Your task to perform on an android device: turn off javascript in the chrome app Image 0: 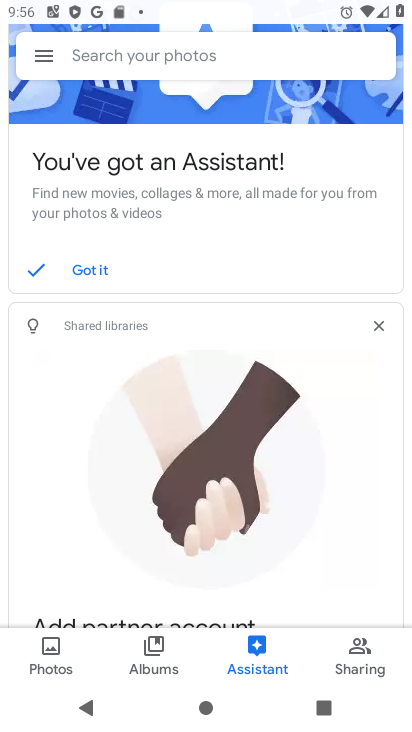
Step 0: press home button
Your task to perform on an android device: turn off javascript in the chrome app Image 1: 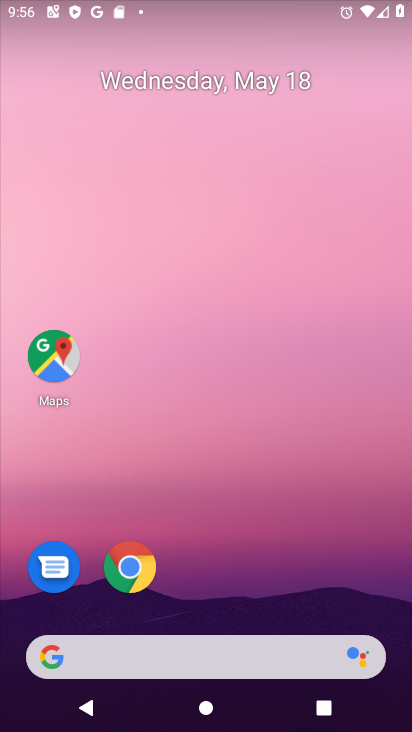
Step 1: click (139, 566)
Your task to perform on an android device: turn off javascript in the chrome app Image 2: 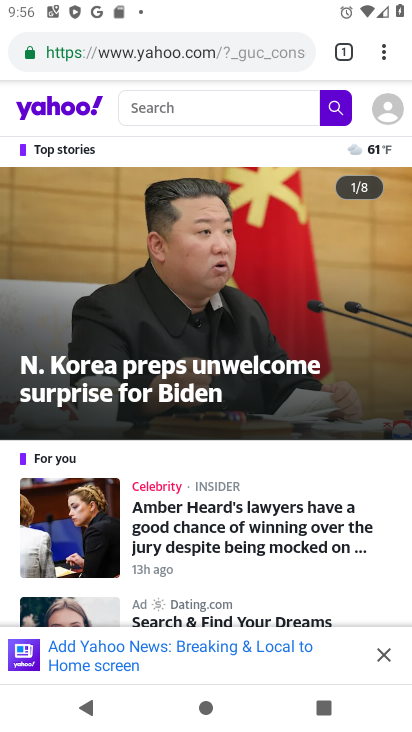
Step 2: drag from (382, 46) to (186, 624)
Your task to perform on an android device: turn off javascript in the chrome app Image 3: 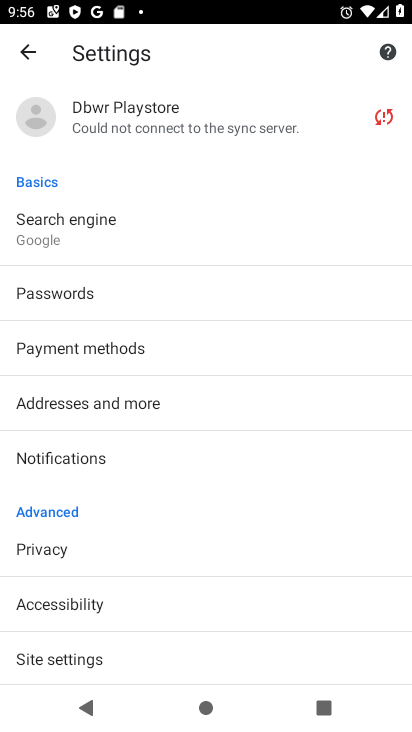
Step 3: click (81, 650)
Your task to perform on an android device: turn off javascript in the chrome app Image 4: 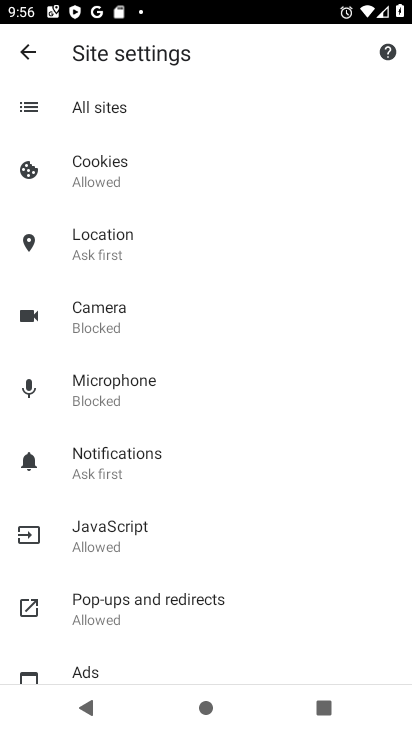
Step 4: click (117, 537)
Your task to perform on an android device: turn off javascript in the chrome app Image 5: 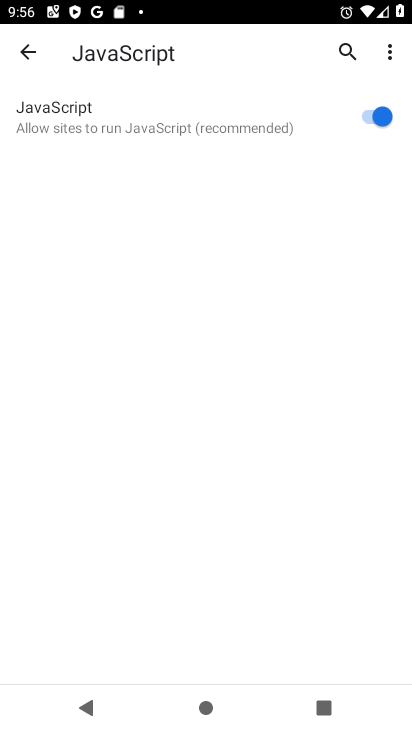
Step 5: click (364, 114)
Your task to perform on an android device: turn off javascript in the chrome app Image 6: 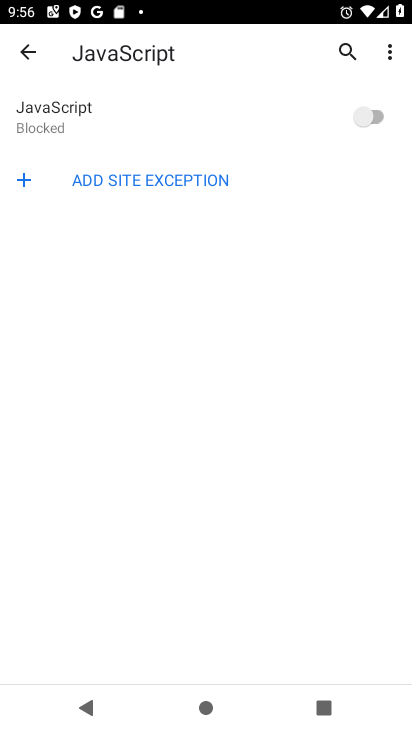
Step 6: task complete